Your task to perform on an android device: empty trash in google photos Image 0: 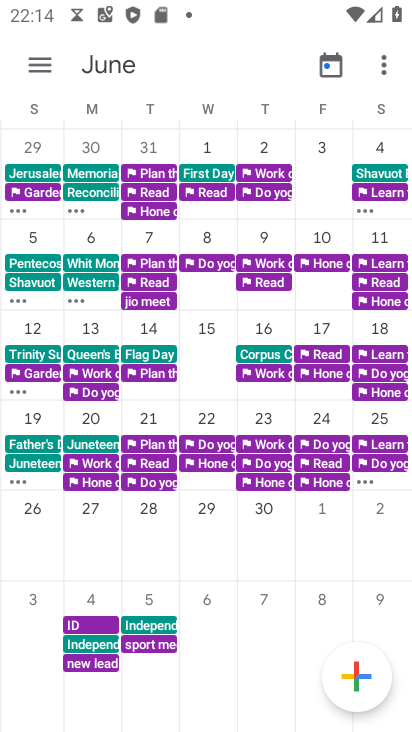
Step 0: press home button
Your task to perform on an android device: empty trash in google photos Image 1: 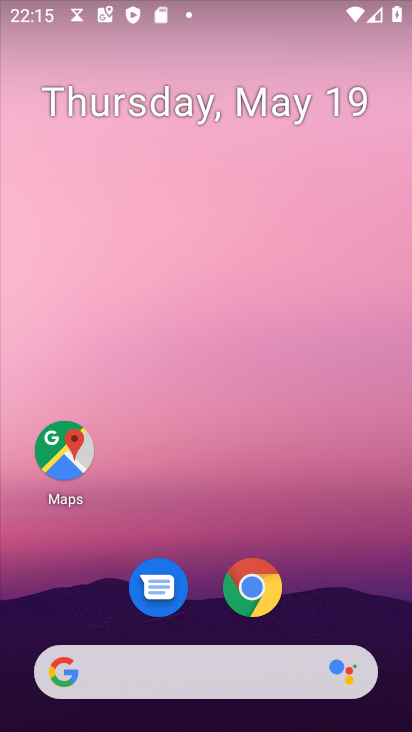
Step 1: drag from (235, 664) to (9, 407)
Your task to perform on an android device: empty trash in google photos Image 2: 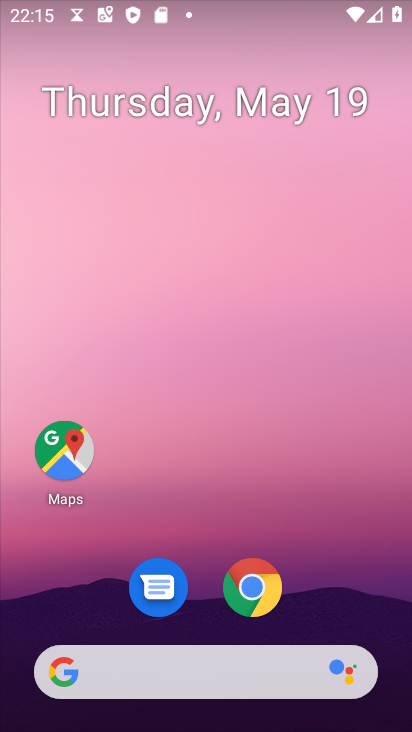
Step 2: drag from (259, 687) to (261, 155)
Your task to perform on an android device: empty trash in google photos Image 3: 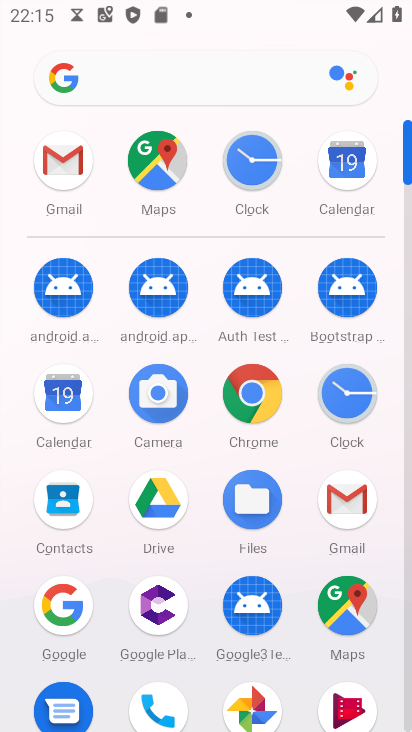
Step 3: click (244, 698)
Your task to perform on an android device: empty trash in google photos Image 4: 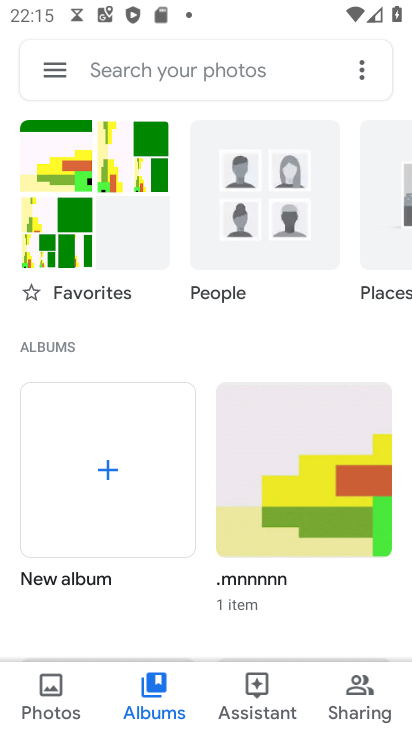
Step 4: click (59, 64)
Your task to perform on an android device: empty trash in google photos Image 5: 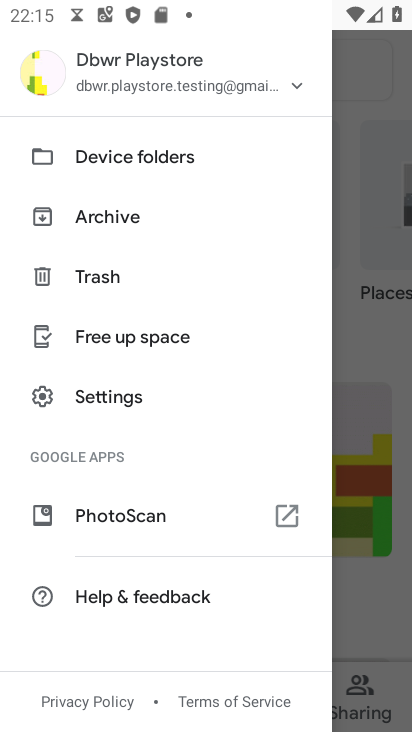
Step 5: click (69, 277)
Your task to perform on an android device: empty trash in google photos Image 6: 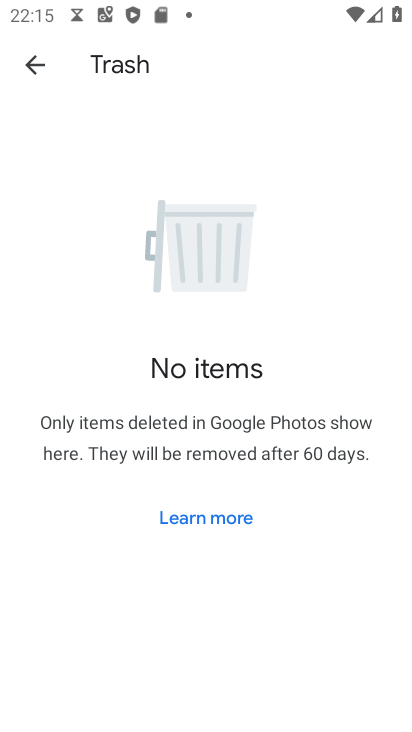
Step 6: task complete